Your task to perform on an android device: Search for Italian restaurants on Maps Image 0: 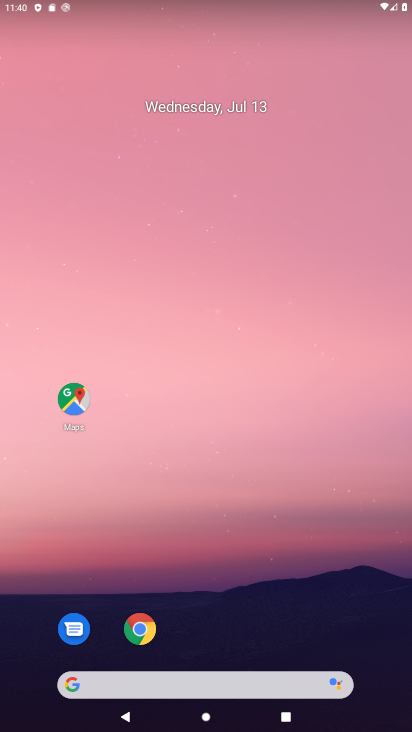
Step 0: drag from (263, 693) to (197, 189)
Your task to perform on an android device: Search for Italian restaurants on Maps Image 1: 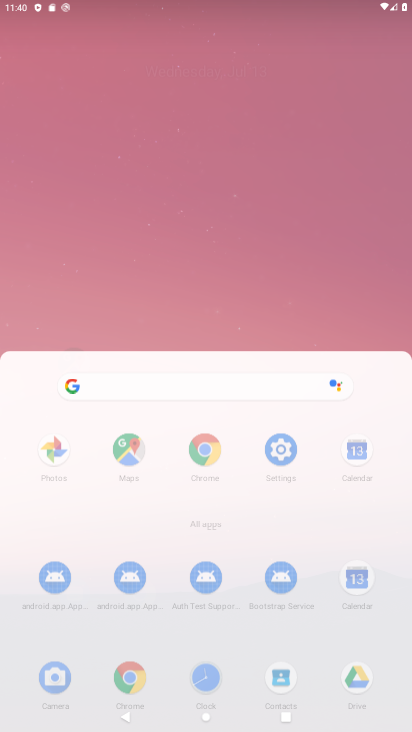
Step 1: drag from (250, 613) to (174, 236)
Your task to perform on an android device: Search for Italian restaurants on Maps Image 2: 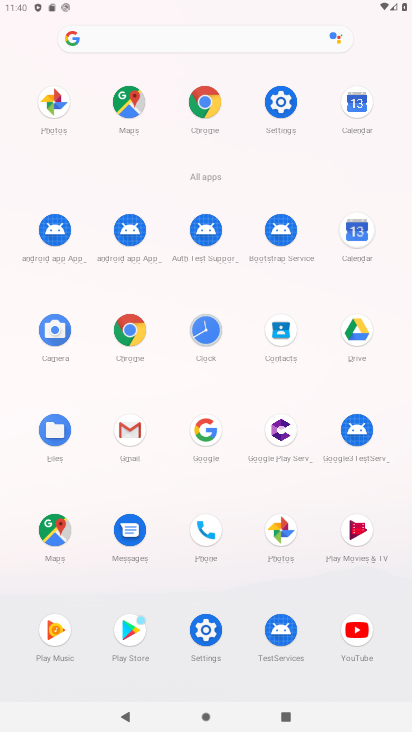
Step 2: click (70, 515)
Your task to perform on an android device: Search for Italian restaurants on Maps Image 3: 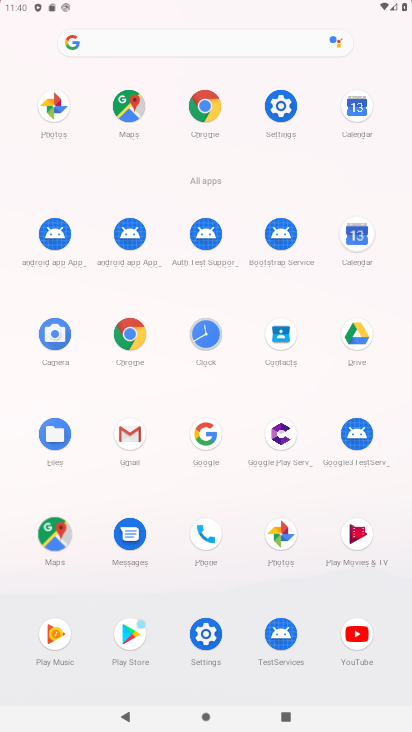
Step 3: click (62, 524)
Your task to perform on an android device: Search for Italian restaurants on Maps Image 4: 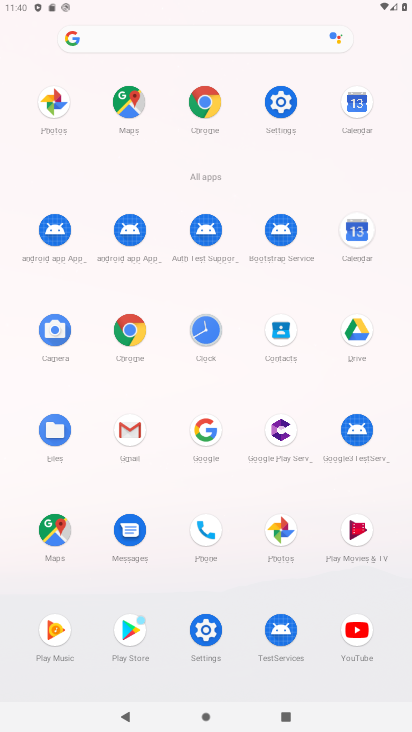
Step 4: click (61, 526)
Your task to perform on an android device: Search for Italian restaurants on Maps Image 5: 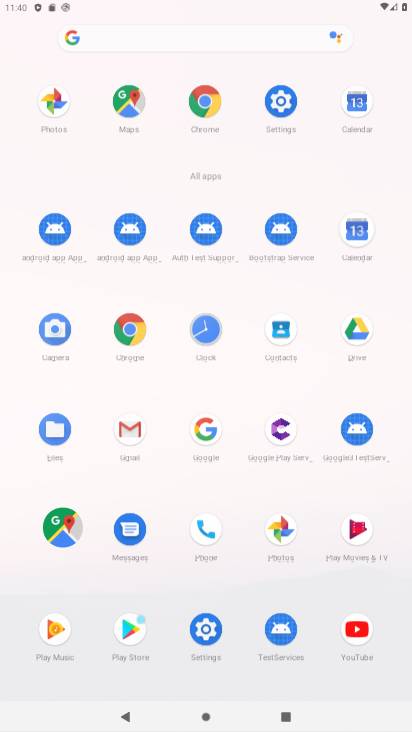
Step 5: click (66, 532)
Your task to perform on an android device: Search for Italian restaurants on Maps Image 6: 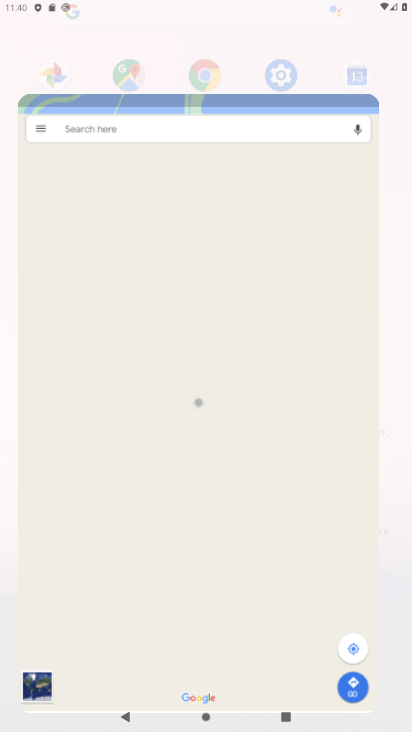
Step 6: click (66, 532)
Your task to perform on an android device: Search for Italian restaurants on Maps Image 7: 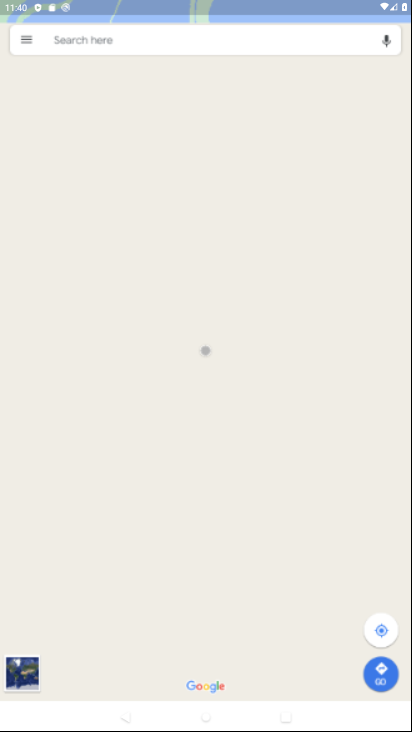
Step 7: click (66, 532)
Your task to perform on an android device: Search for Italian restaurants on Maps Image 8: 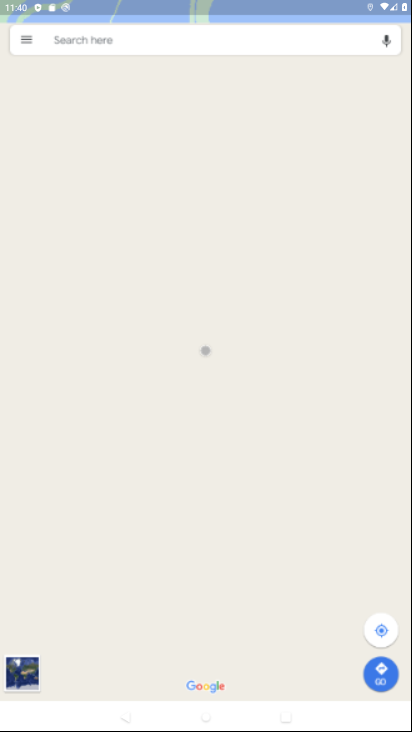
Step 8: click (66, 532)
Your task to perform on an android device: Search for Italian restaurants on Maps Image 9: 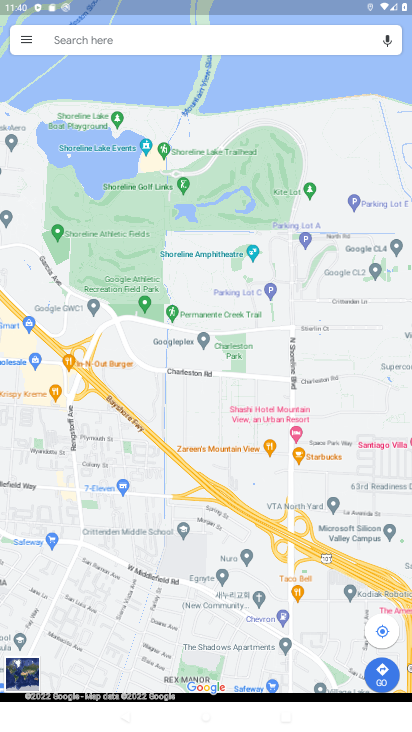
Step 9: click (94, 35)
Your task to perform on an android device: Search for Italian restaurants on Maps Image 10: 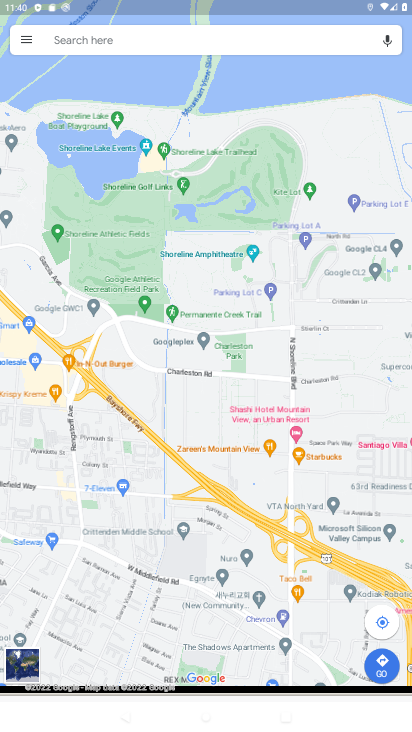
Step 10: click (94, 35)
Your task to perform on an android device: Search for Italian restaurants on Maps Image 11: 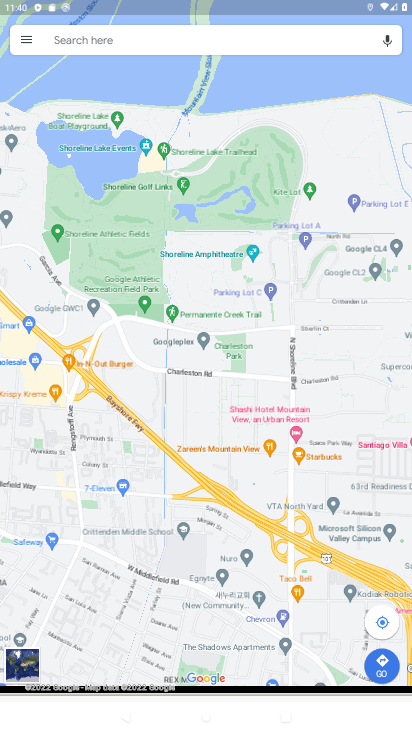
Step 11: click (95, 35)
Your task to perform on an android device: Search for Italian restaurants on Maps Image 12: 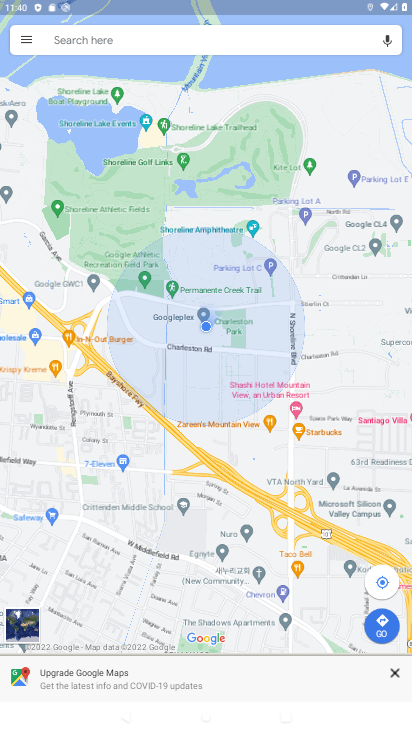
Step 12: click (96, 35)
Your task to perform on an android device: Search for Italian restaurants on Maps Image 13: 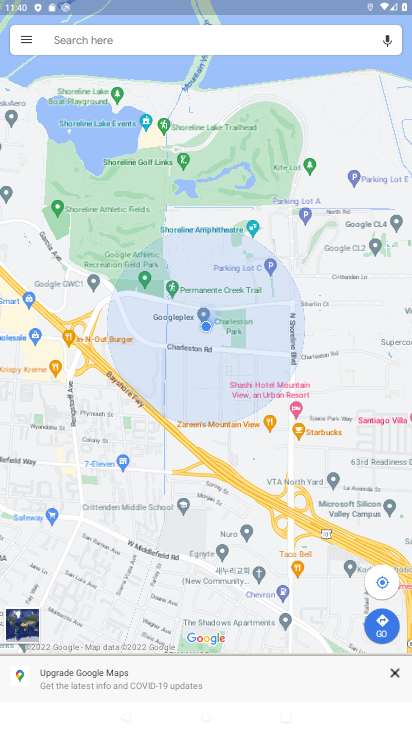
Step 13: click (97, 36)
Your task to perform on an android device: Search for Italian restaurants on Maps Image 14: 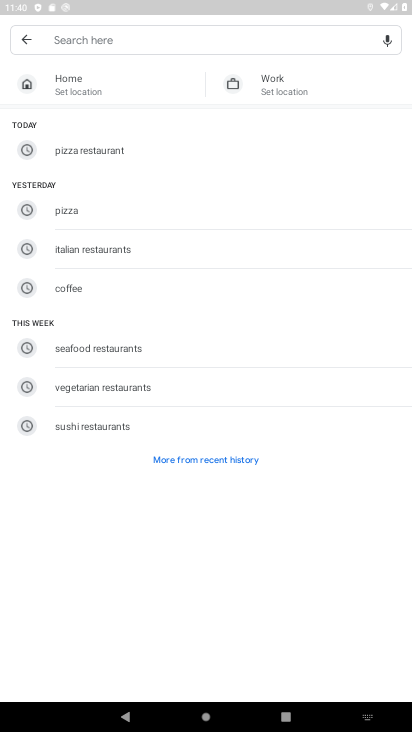
Step 14: click (89, 241)
Your task to perform on an android device: Search for Italian restaurants on Maps Image 15: 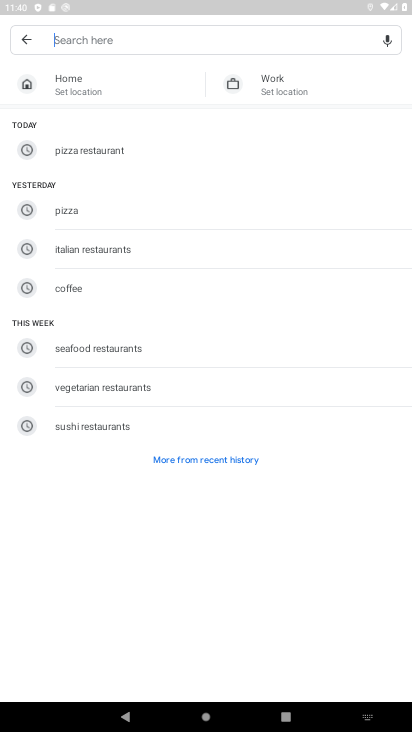
Step 15: click (90, 240)
Your task to perform on an android device: Search for Italian restaurants on Maps Image 16: 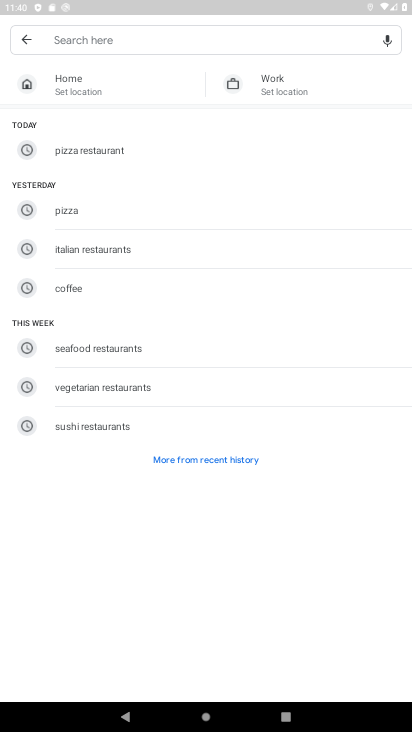
Step 16: click (96, 247)
Your task to perform on an android device: Search for Italian restaurants on Maps Image 17: 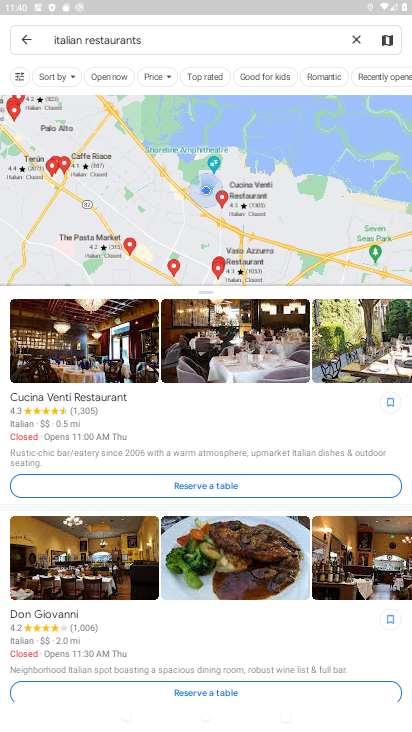
Step 17: task complete